Your task to perform on an android device: open app "ZOOM Cloud Meetings" Image 0: 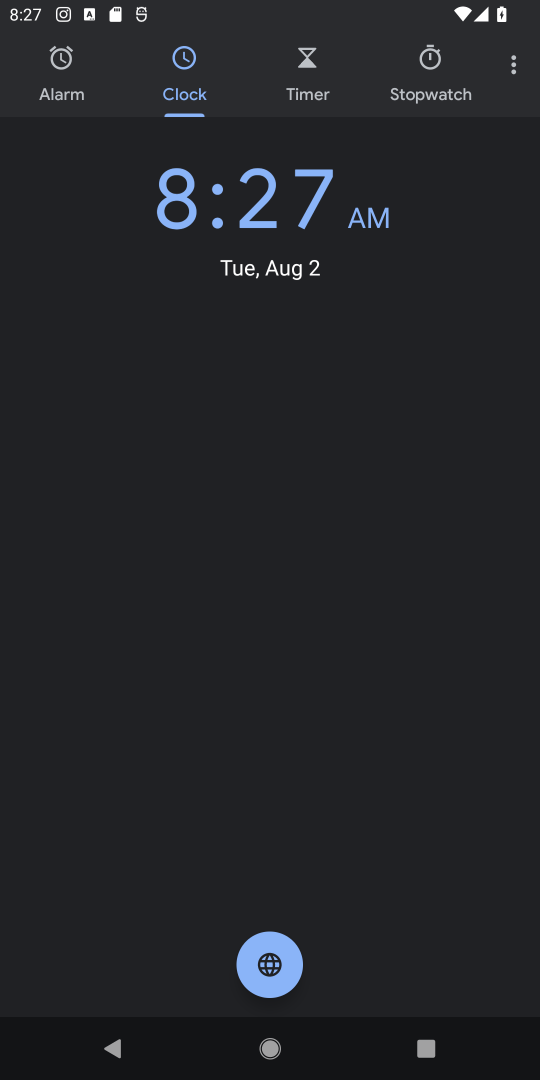
Step 0: press home button
Your task to perform on an android device: open app "ZOOM Cloud Meetings" Image 1: 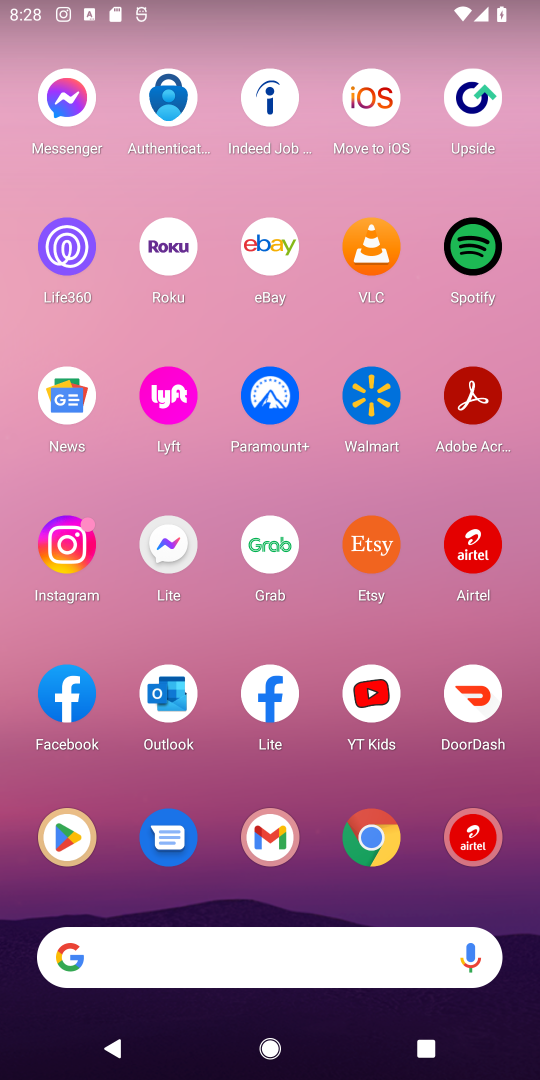
Step 1: click (84, 843)
Your task to perform on an android device: open app "ZOOM Cloud Meetings" Image 2: 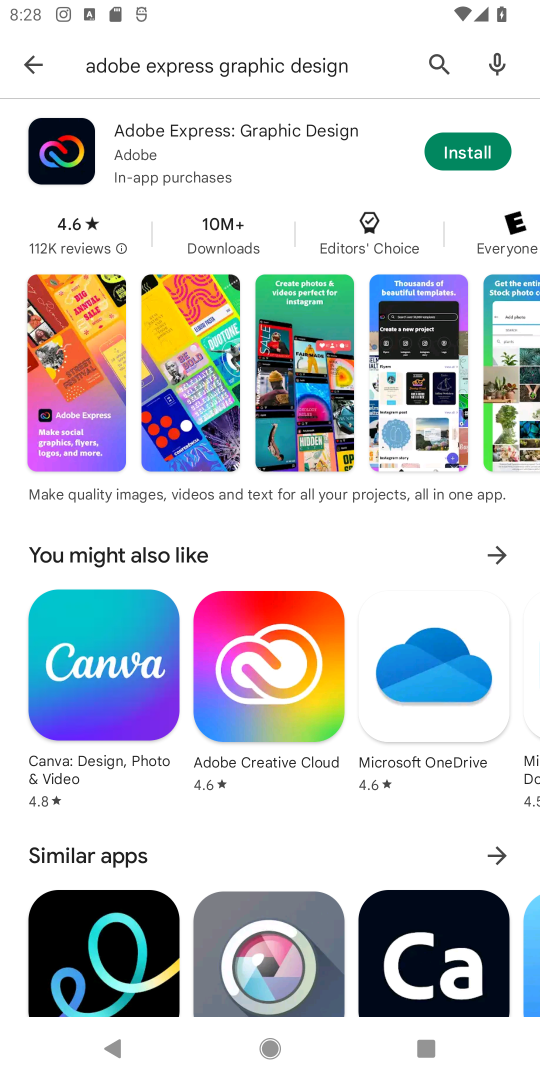
Step 2: click (441, 64)
Your task to perform on an android device: open app "ZOOM Cloud Meetings" Image 3: 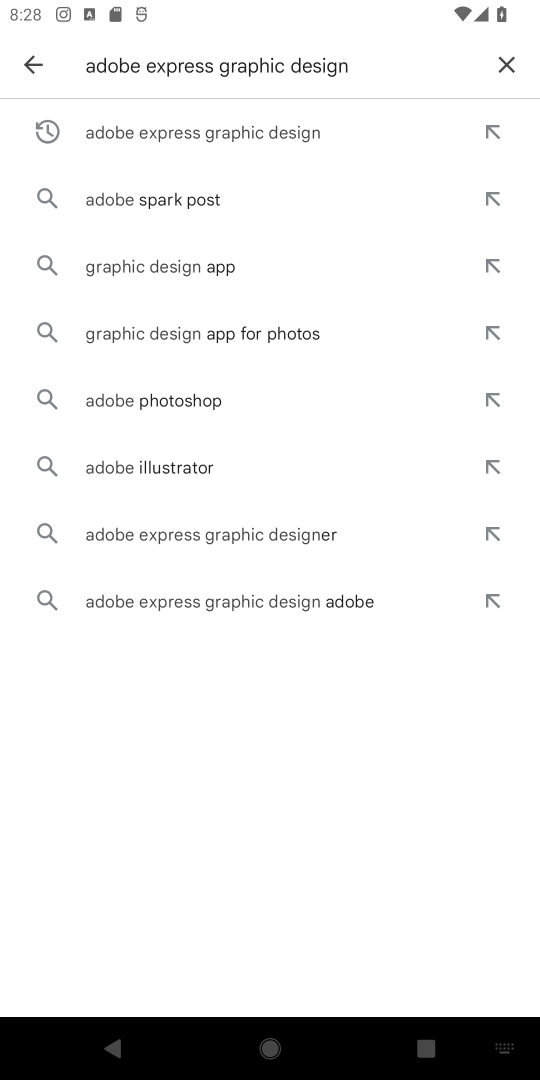
Step 3: click (508, 68)
Your task to perform on an android device: open app "ZOOM Cloud Meetings" Image 4: 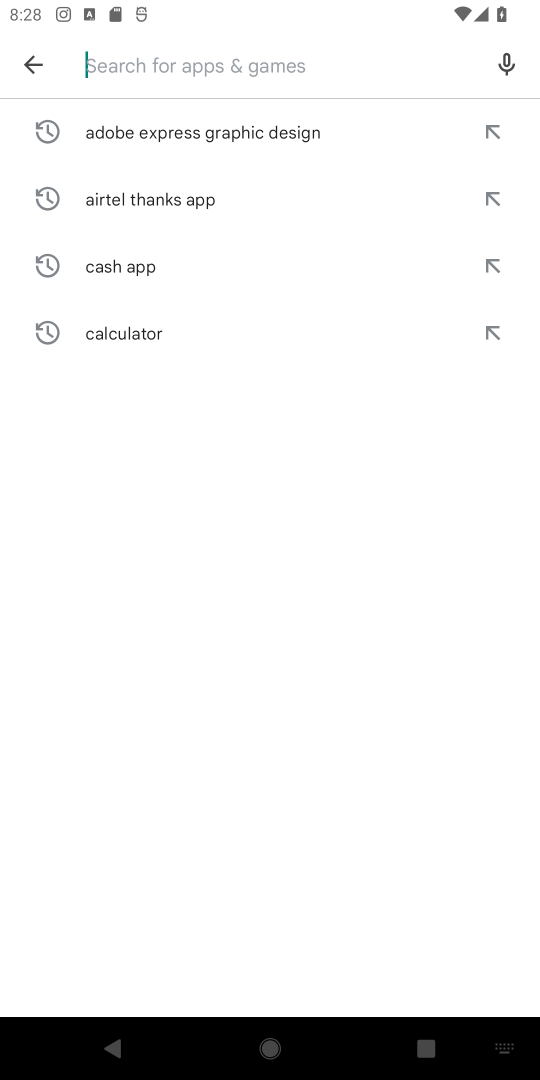
Step 4: type "ZOOM Cloud Meetings"
Your task to perform on an android device: open app "ZOOM Cloud Meetings" Image 5: 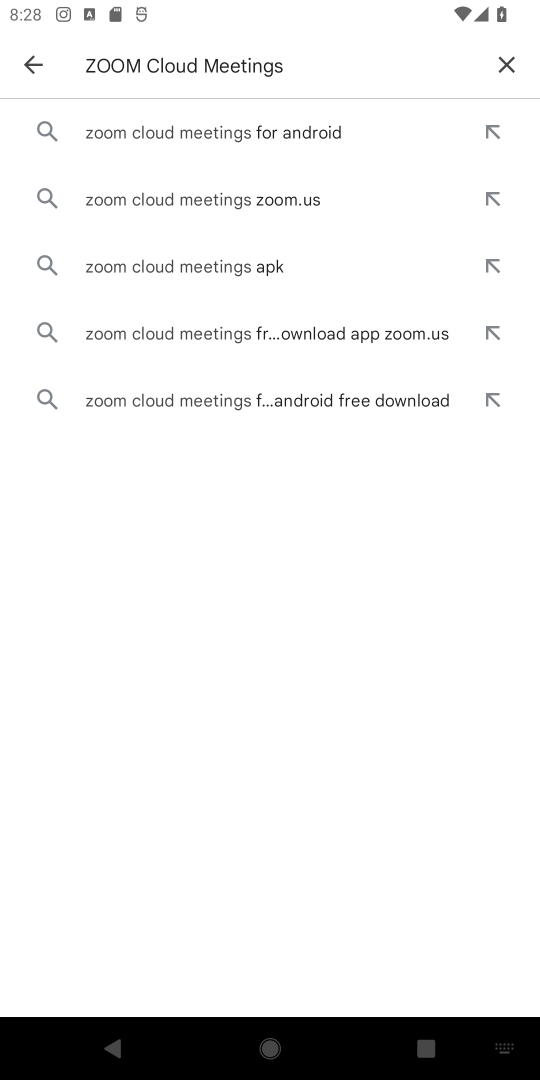
Step 5: click (209, 141)
Your task to perform on an android device: open app "ZOOM Cloud Meetings" Image 6: 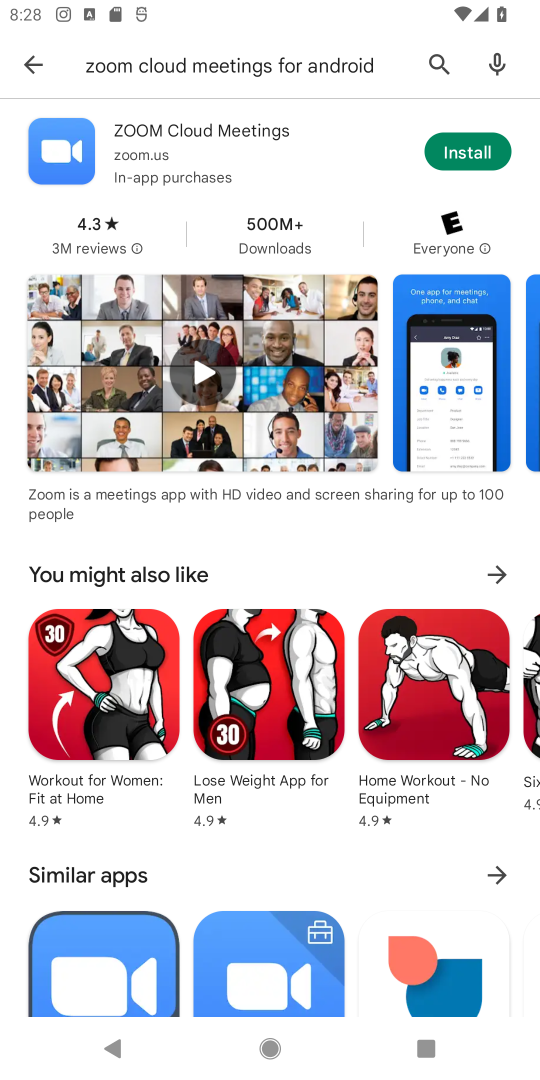
Step 6: task complete